Your task to perform on an android device: Open Google Chrome Image 0: 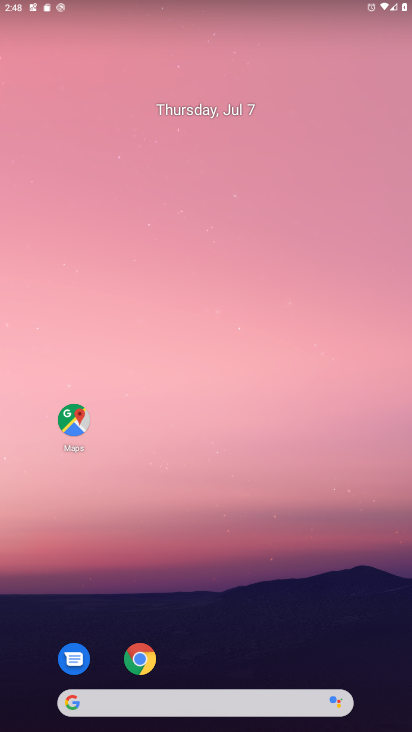
Step 0: drag from (270, 394) to (291, 182)
Your task to perform on an android device: Open Google Chrome Image 1: 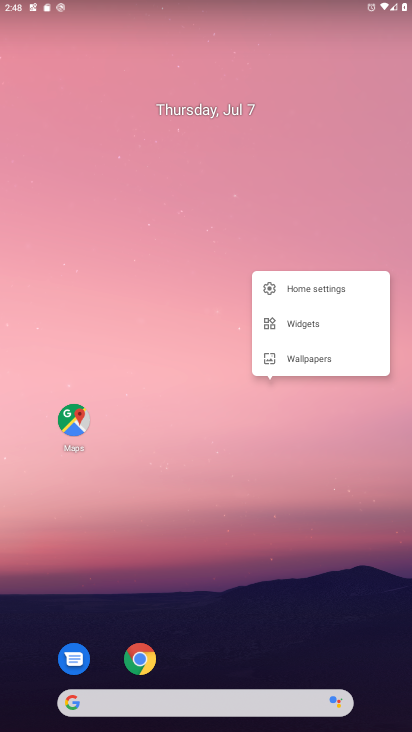
Step 1: drag from (234, 385) to (200, 81)
Your task to perform on an android device: Open Google Chrome Image 2: 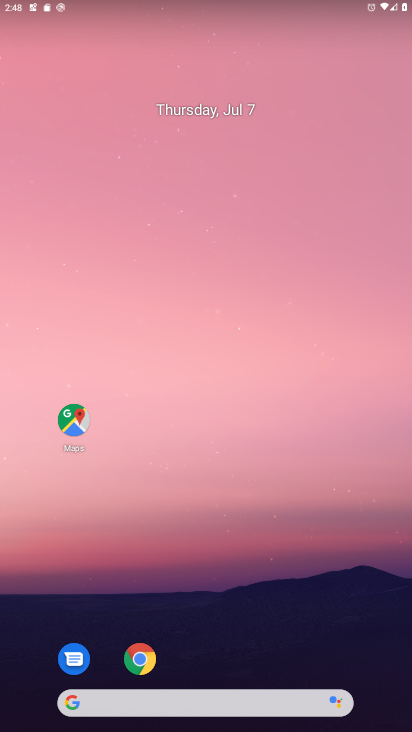
Step 2: drag from (207, 635) to (290, 169)
Your task to perform on an android device: Open Google Chrome Image 3: 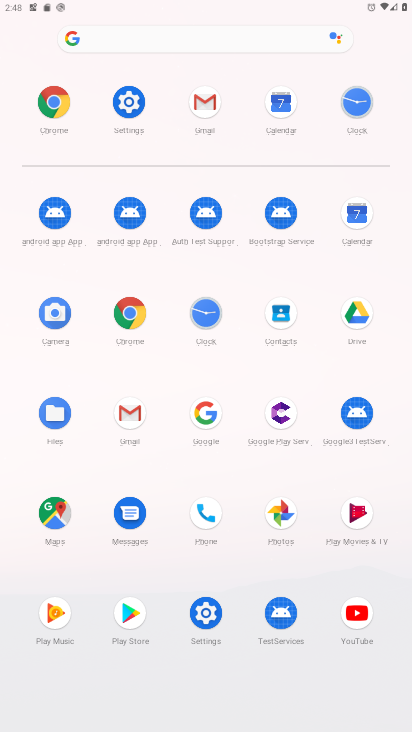
Step 3: click (58, 107)
Your task to perform on an android device: Open Google Chrome Image 4: 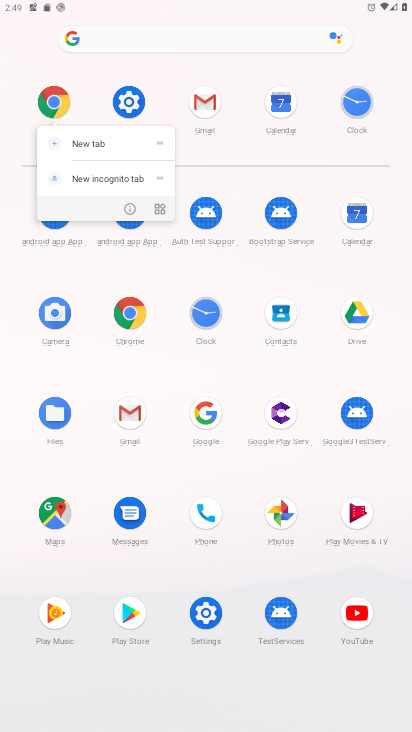
Step 4: click (128, 204)
Your task to perform on an android device: Open Google Chrome Image 5: 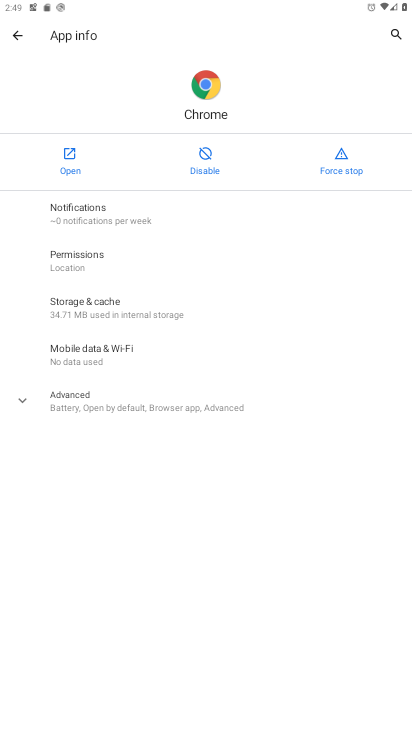
Step 5: click (68, 160)
Your task to perform on an android device: Open Google Chrome Image 6: 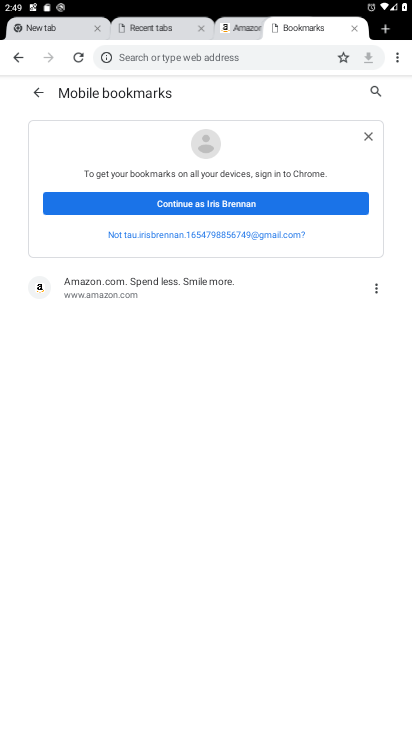
Step 6: task complete